Your task to perform on an android device: Go to settings Image 0: 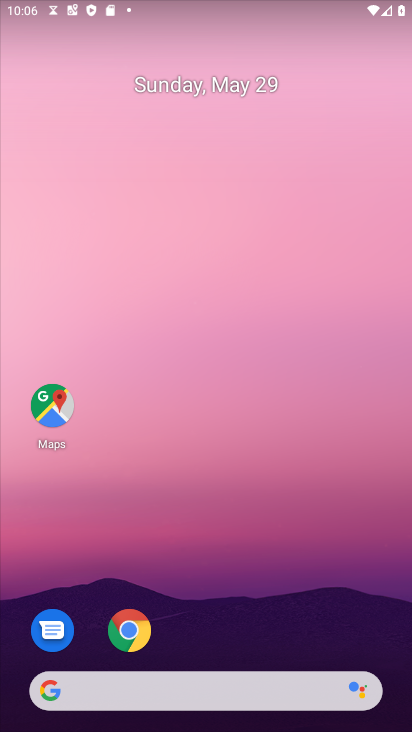
Step 0: drag from (223, 631) to (271, 11)
Your task to perform on an android device: Go to settings Image 1: 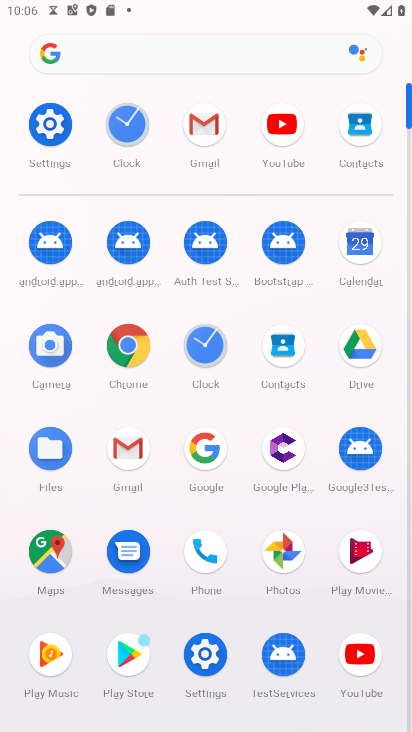
Step 1: click (44, 114)
Your task to perform on an android device: Go to settings Image 2: 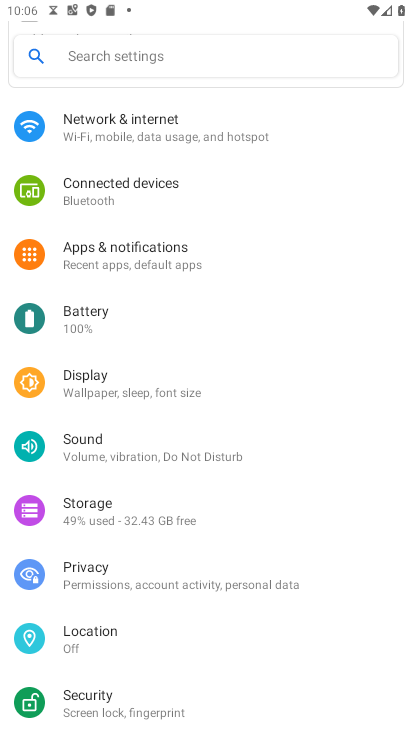
Step 2: task complete